Your task to perform on an android device: uninstall "Google News" Image 0: 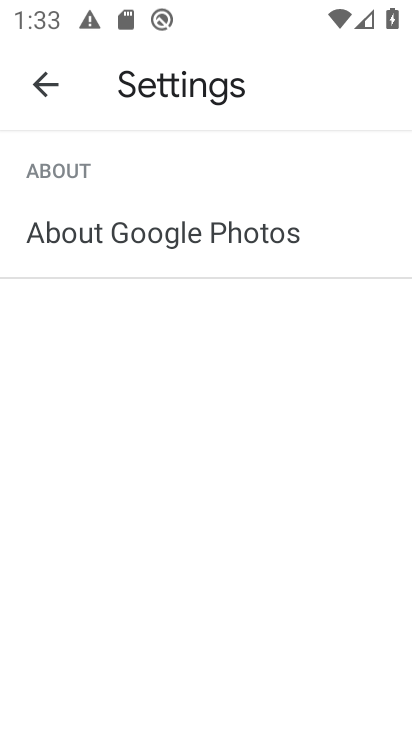
Step 0: press home button
Your task to perform on an android device: uninstall "Google News" Image 1: 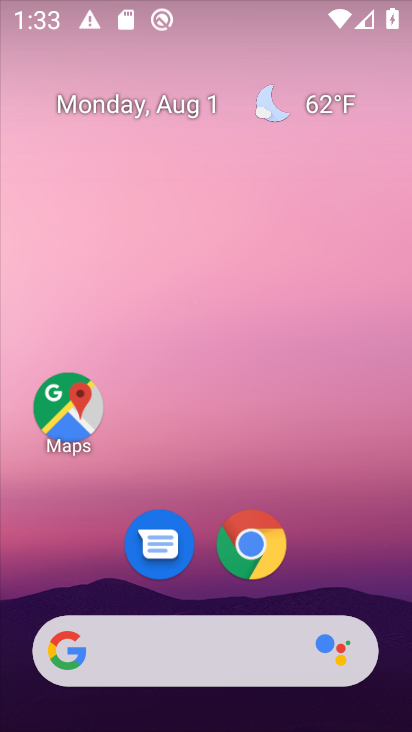
Step 1: drag from (388, 646) to (249, 26)
Your task to perform on an android device: uninstall "Google News" Image 2: 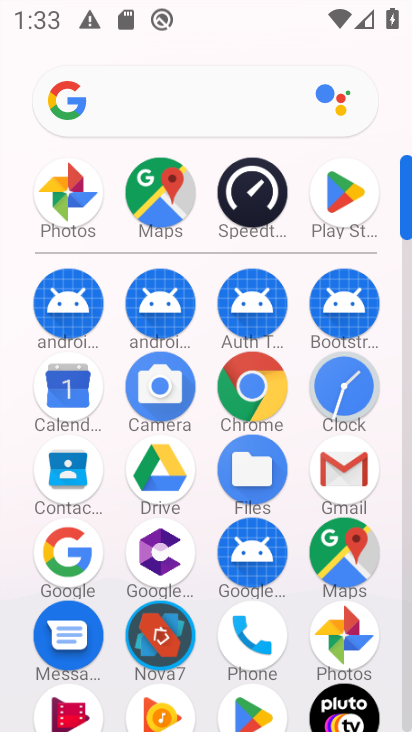
Step 2: click (350, 166)
Your task to perform on an android device: uninstall "Google News" Image 3: 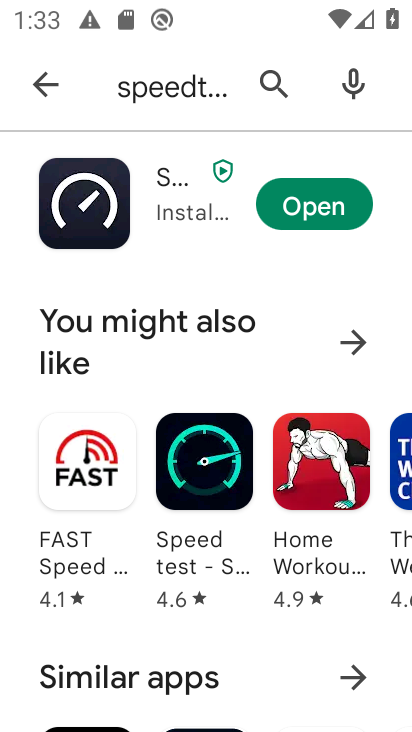
Step 3: press back button
Your task to perform on an android device: uninstall "Google News" Image 4: 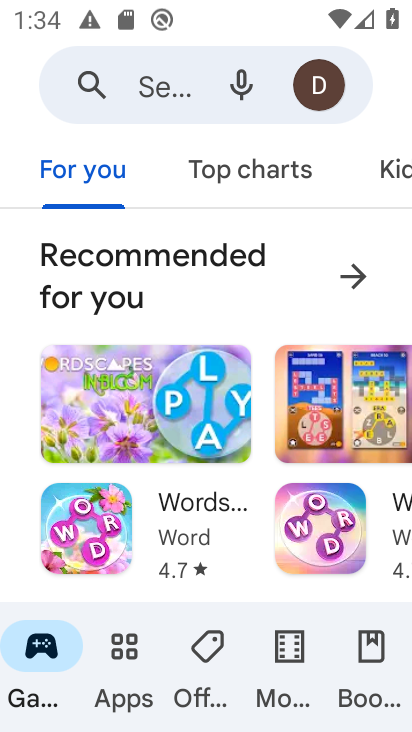
Step 4: click (170, 75)
Your task to perform on an android device: uninstall "Google News" Image 5: 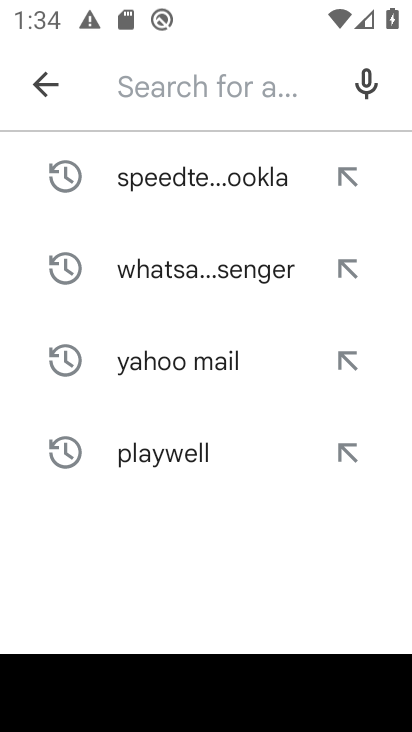
Step 5: type "Google News"
Your task to perform on an android device: uninstall "Google News" Image 6: 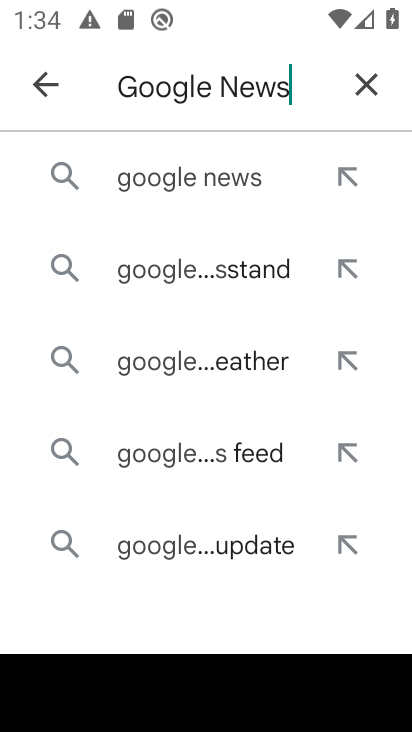
Step 6: click (153, 186)
Your task to perform on an android device: uninstall "Google News" Image 7: 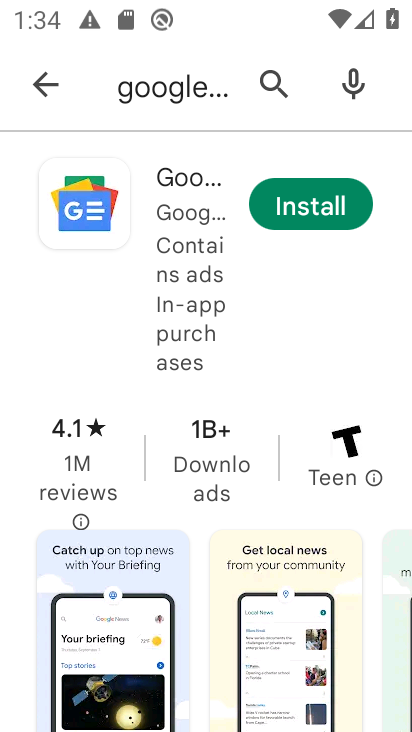
Step 7: task complete